Your task to perform on an android device: turn off sleep mode Image 0: 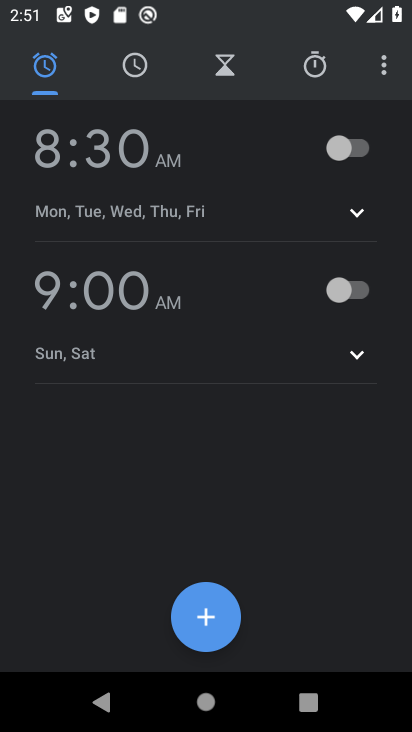
Step 0: press home button
Your task to perform on an android device: turn off sleep mode Image 1: 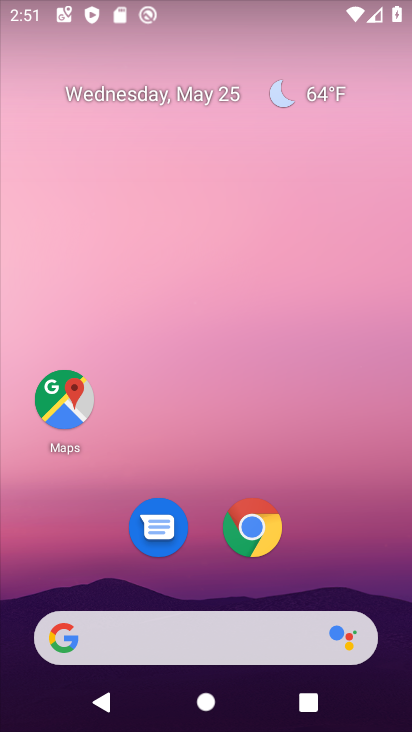
Step 1: drag from (56, 555) to (182, 58)
Your task to perform on an android device: turn off sleep mode Image 2: 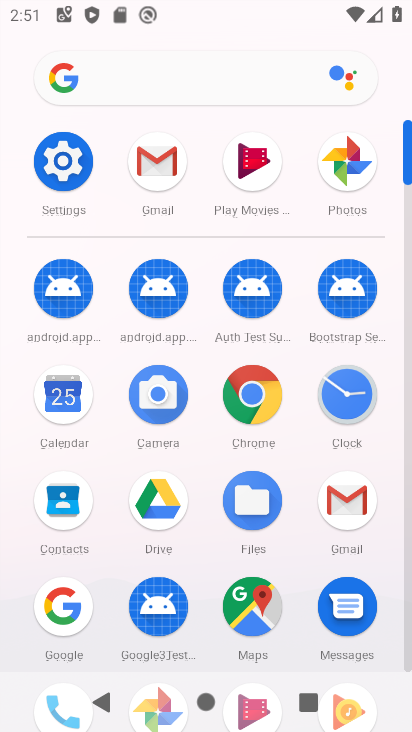
Step 2: click (60, 174)
Your task to perform on an android device: turn off sleep mode Image 3: 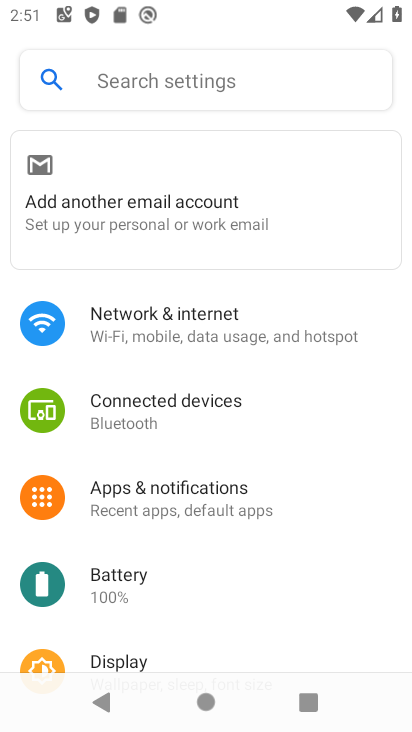
Step 3: click (120, 78)
Your task to perform on an android device: turn off sleep mode Image 4: 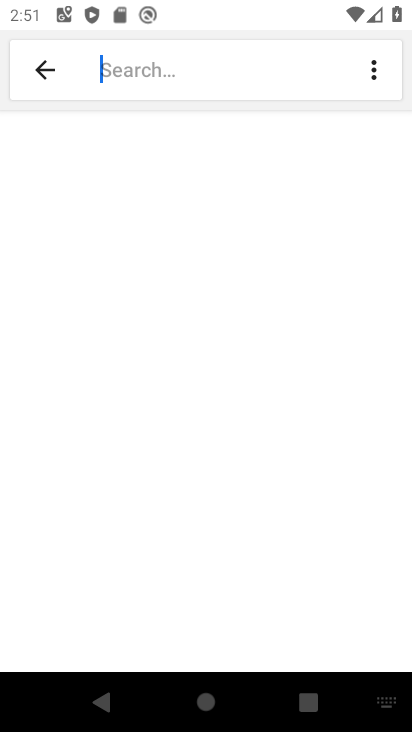
Step 4: type "sleep mode"
Your task to perform on an android device: turn off sleep mode Image 5: 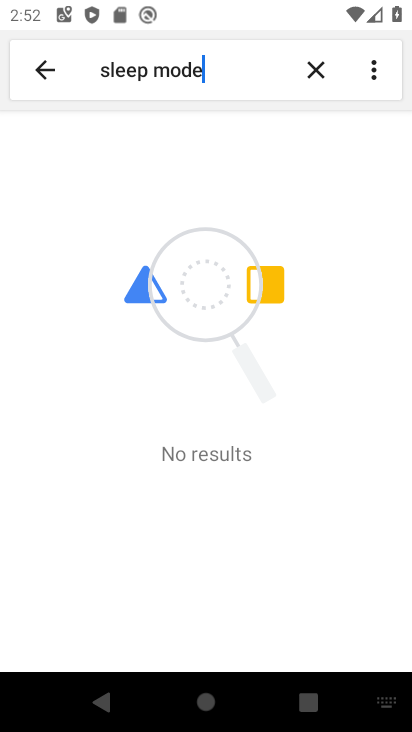
Step 5: task complete